Your task to perform on an android device: turn off data saver in the chrome app Image 0: 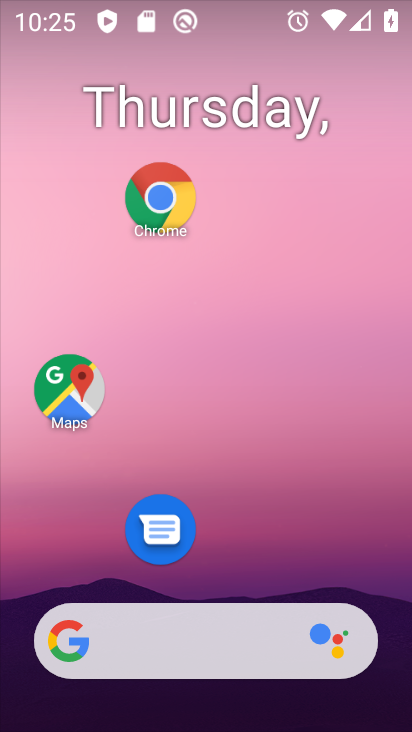
Step 0: click (165, 192)
Your task to perform on an android device: turn off data saver in the chrome app Image 1: 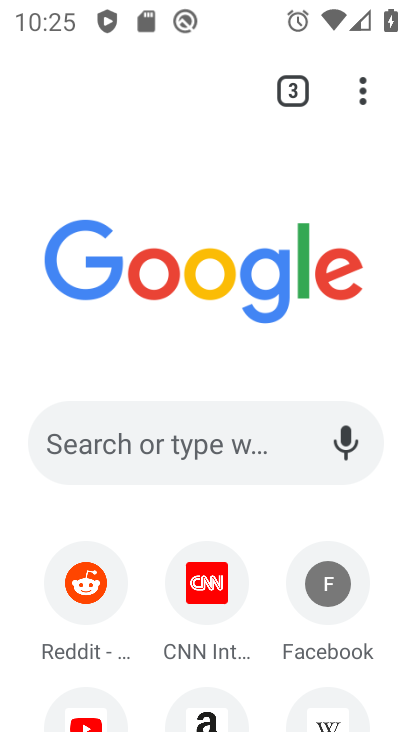
Step 1: click (363, 91)
Your task to perform on an android device: turn off data saver in the chrome app Image 2: 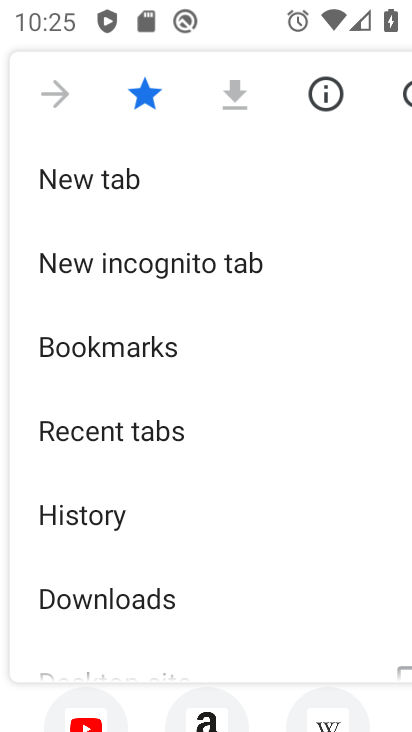
Step 2: drag from (225, 534) to (214, 243)
Your task to perform on an android device: turn off data saver in the chrome app Image 3: 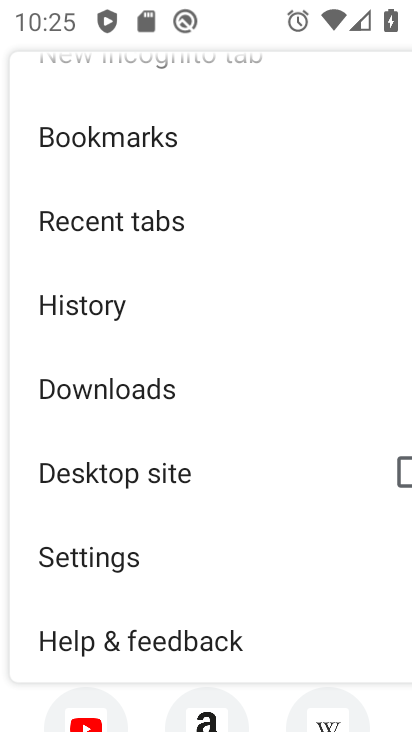
Step 3: click (88, 550)
Your task to perform on an android device: turn off data saver in the chrome app Image 4: 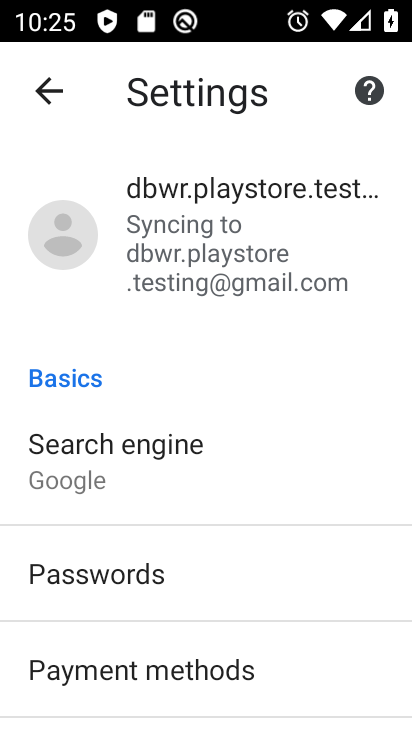
Step 4: drag from (233, 590) to (251, 228)
Your task to perform on an android device: turn off data saver in the chrome app Image 5: 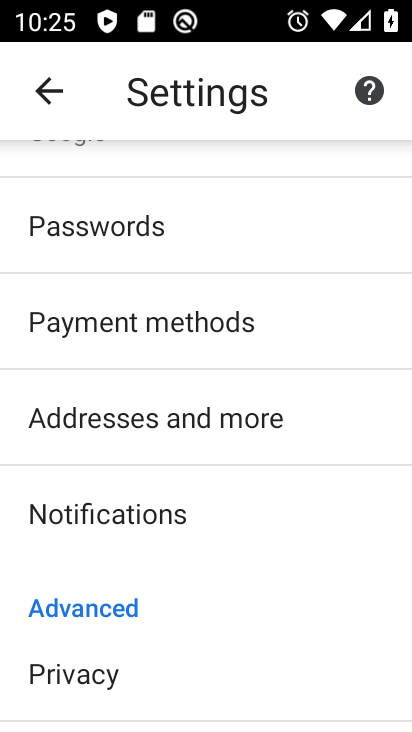
Step 5: drag from (251, 631) to (255, 251)
Your task to perform on an android device: turn off data saver in the chrome app Image 6: 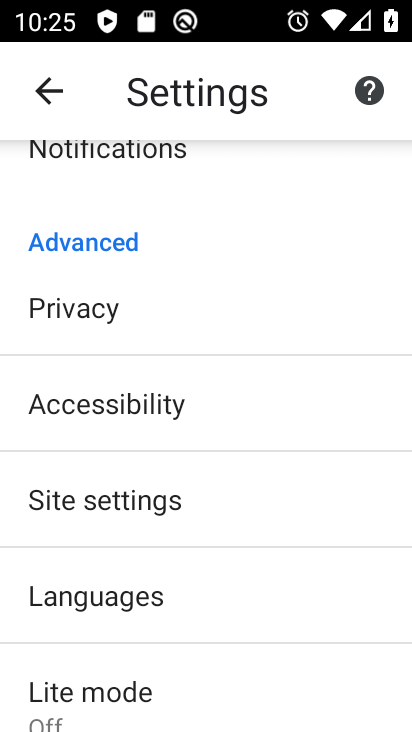
Step 6: drag from (233, 564) to (225, 166)
Your task to perform on an android device: turn off data saver in the chrome app Image 7: 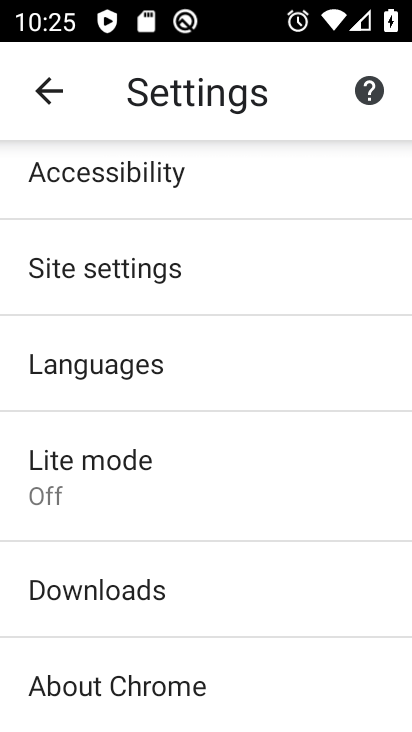
Step 7: click (89, 476)
Your task to perform on an android device: turn off data saver in the chrome app Image 8: 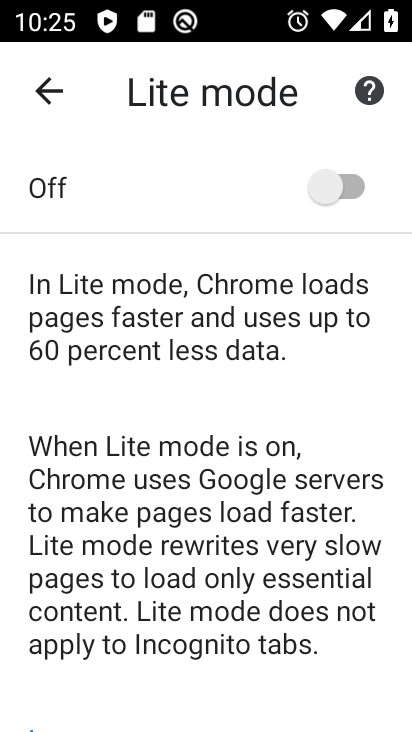
Step 8: task complete